Your task to perform on an android device: open chrome and create a bookmark for the current page Image 0: 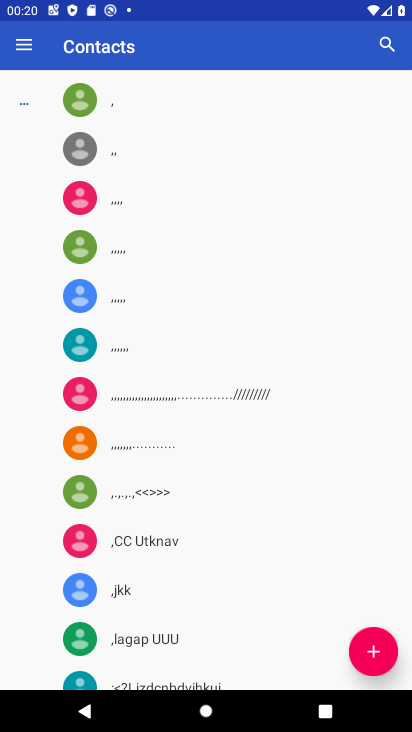
Step 0: press home button
Your task to perform on an android device: open chrome and create a bookmark for the current page Image 1: 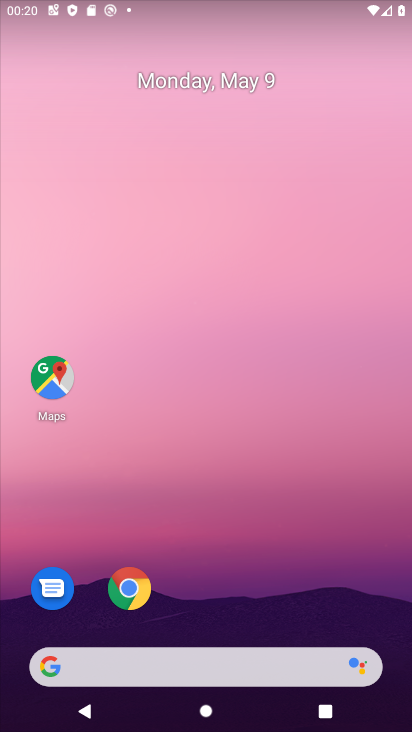
Step 1: click (135, 594)
Your task to perform on an android device: open chrome and create a bookmark for the current page Image 2: 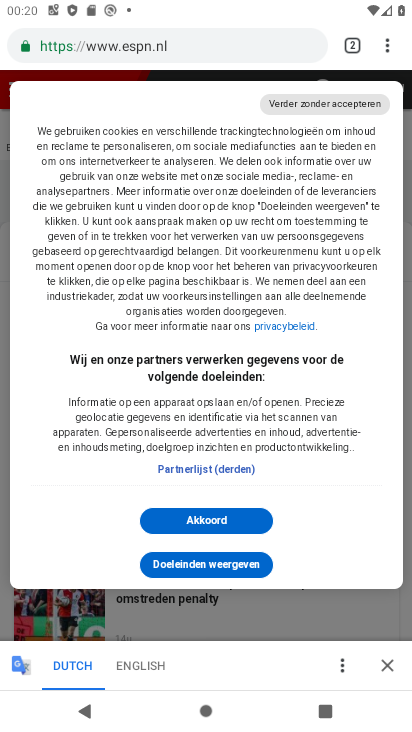
Step 2: click (388, 44)
Your task to perform on an android device: open chrome and create a bookmark for the current page Image 3: 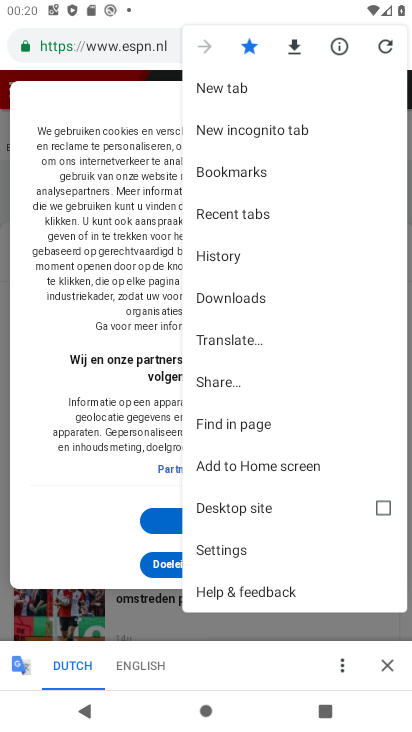
Step 3: task complete